Your task to perform on an android device: see sites visited before in the chrome app Image 0: 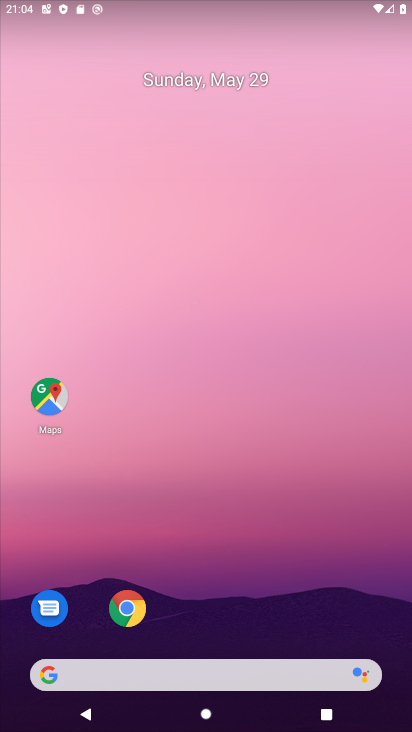
Step 0: drag from (364, 610) to (372, 239)
Your task to perform on an android device: see sites visited before in the chrome app Image 1: 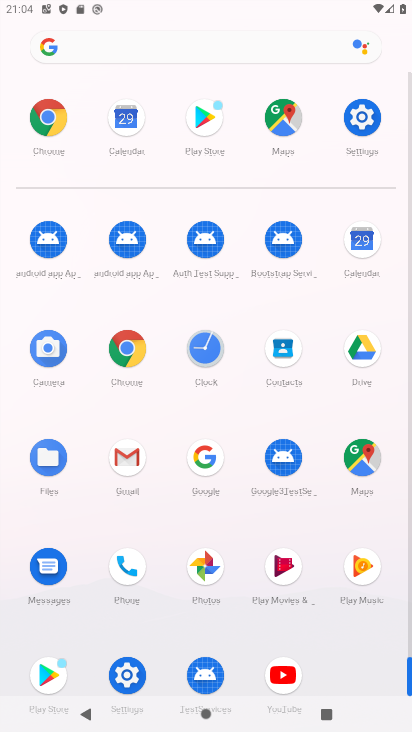
Step 1: click (132, 350)
Your task to perform on an android device: see sites visited before in the chrome app Image 2: 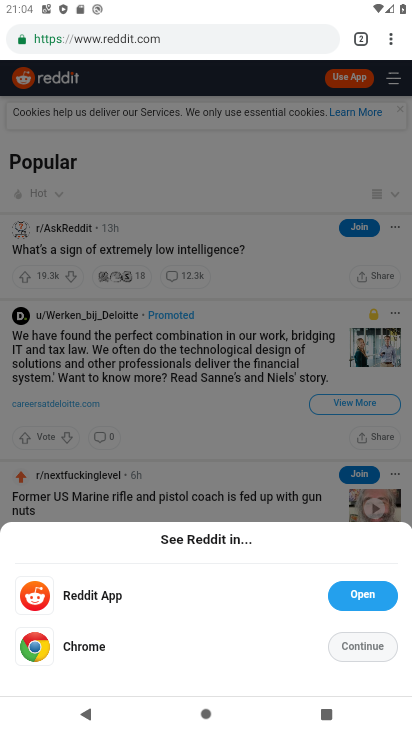
Step 2: click (390, 41)
Your task to perform on an android device: see sites visited before in the chrome app Image 3: 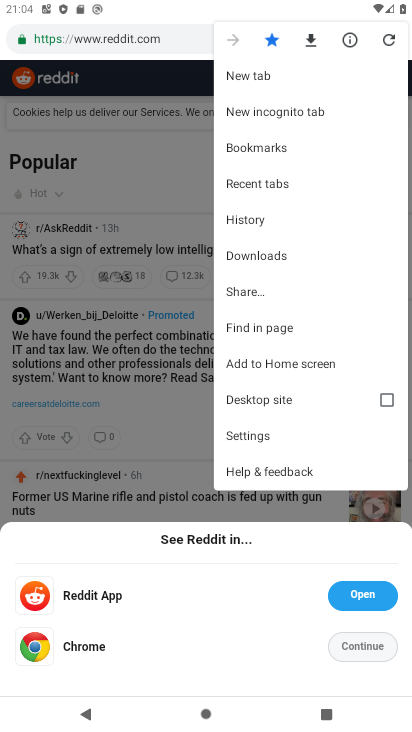
Step 3: click (266, 219)
Your task to perform on an android device: see sites visited before in the chrome app Image 4: 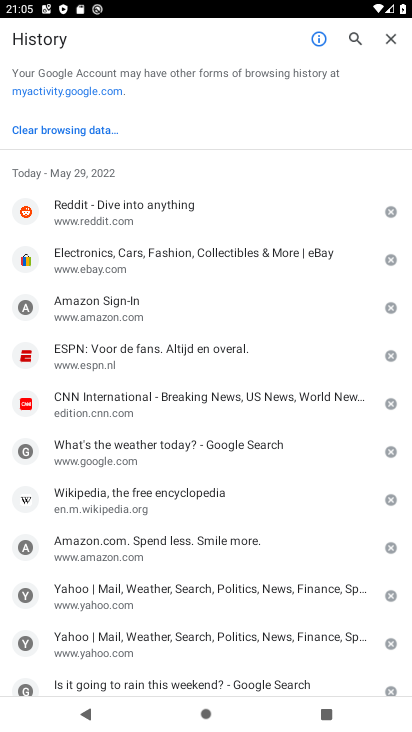
Step 4: task complete